Your task to perform on an android device: Go to Wikipedia Image 0: 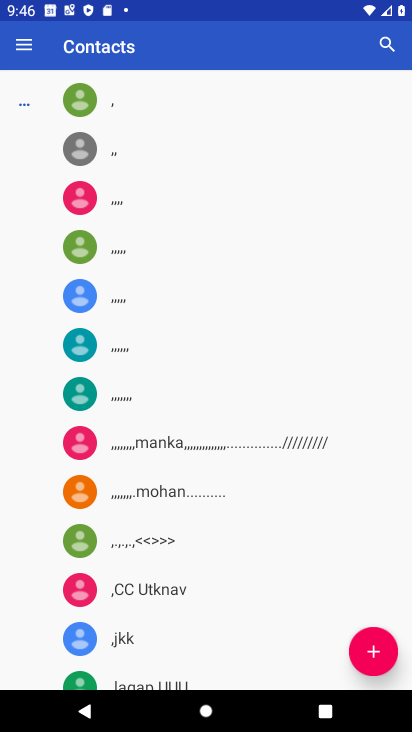
Step 0: press home button
Your task to perform on an android device: Go to Wikipedia Image 1: 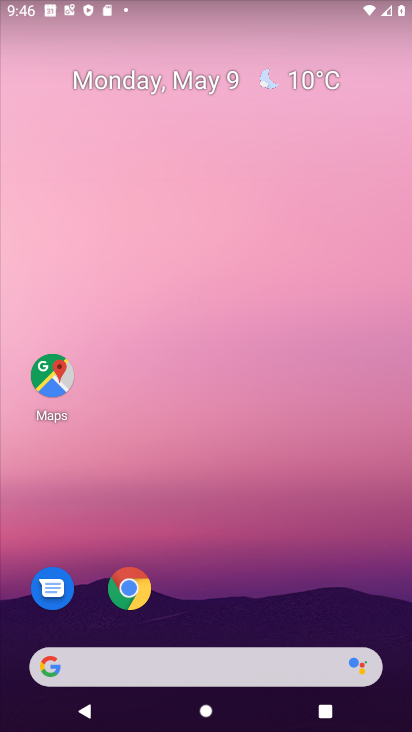
Step 1: drag from (166, 674) to (253, 322)
Your task to perform on an android device: Go to Wikipedia Image 2: 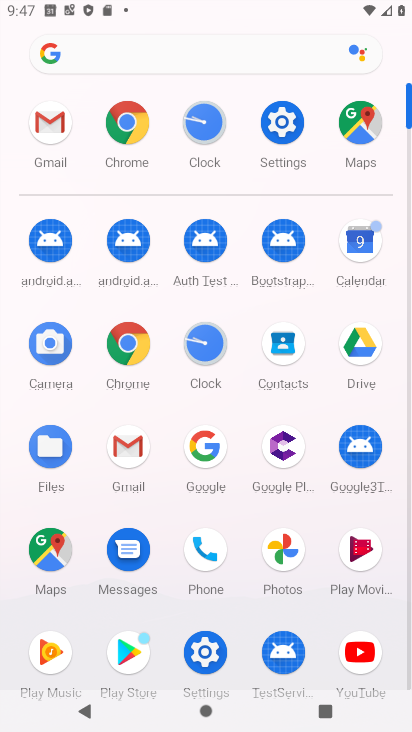
Step 2: click (127, 126)
Your task to perform on an android device: Go to Wikipedia Image 3: 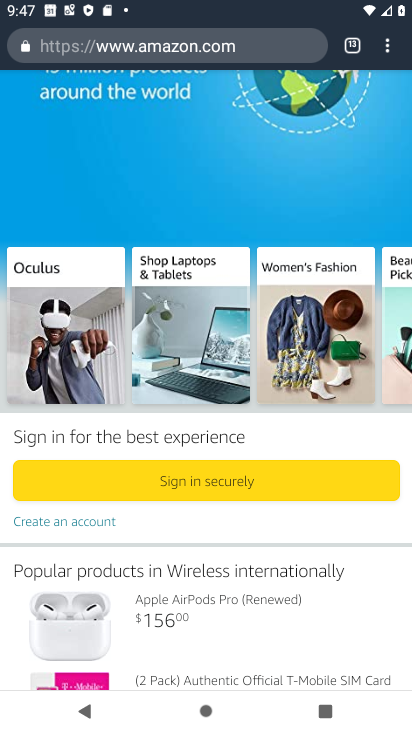
Step 3: drag from (385, 50) to (312, 93)
Your task to perform on an android device: Go to Wikipedia Image 4: 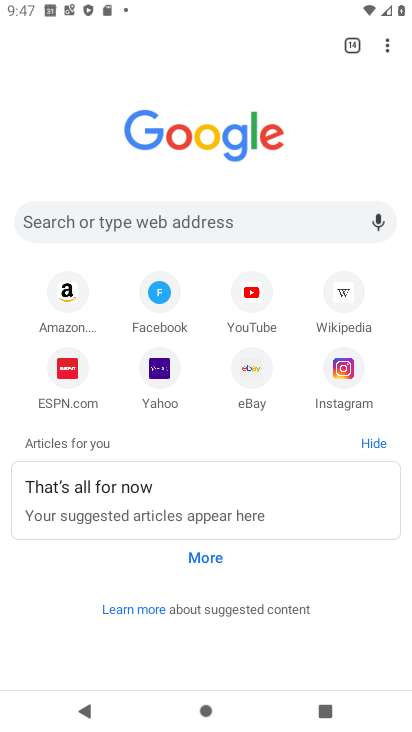
Step 4: click (342, 306)
Your task to perform on an android device: Go to Wikipedia Image 5: 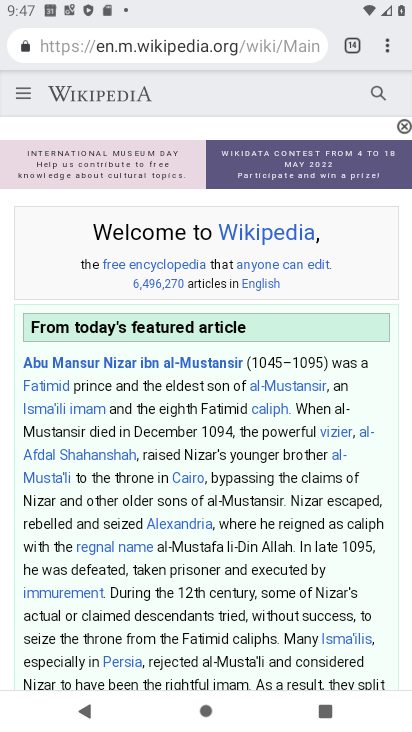
Step 5: task complete